Your task to perform on an android device: change notification settings in the gmail app Image 0: 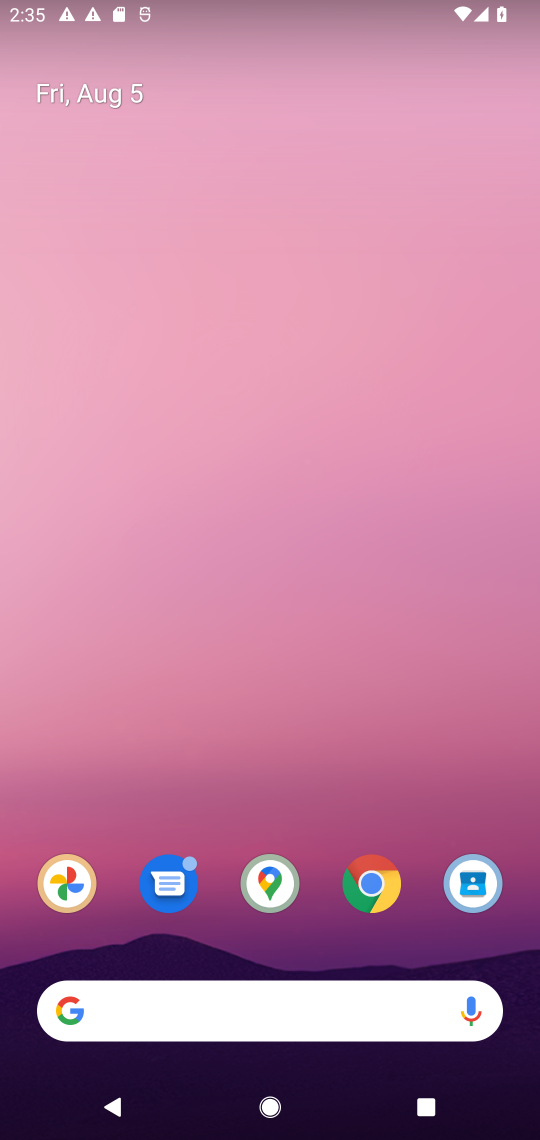
Step 0: press home button
Your task to perform on an android device: change notification settings in the gmail app Image 1: 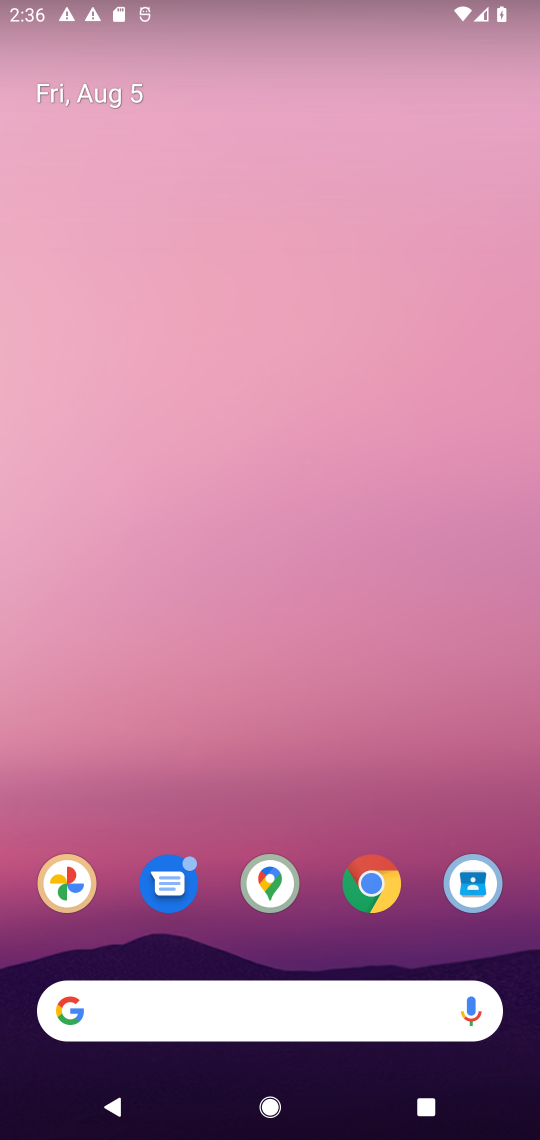
Step 1: drag from (323, 848) to (383, 231)
Your task to perform on an android device: change notification settings in the gmail app Image 2: 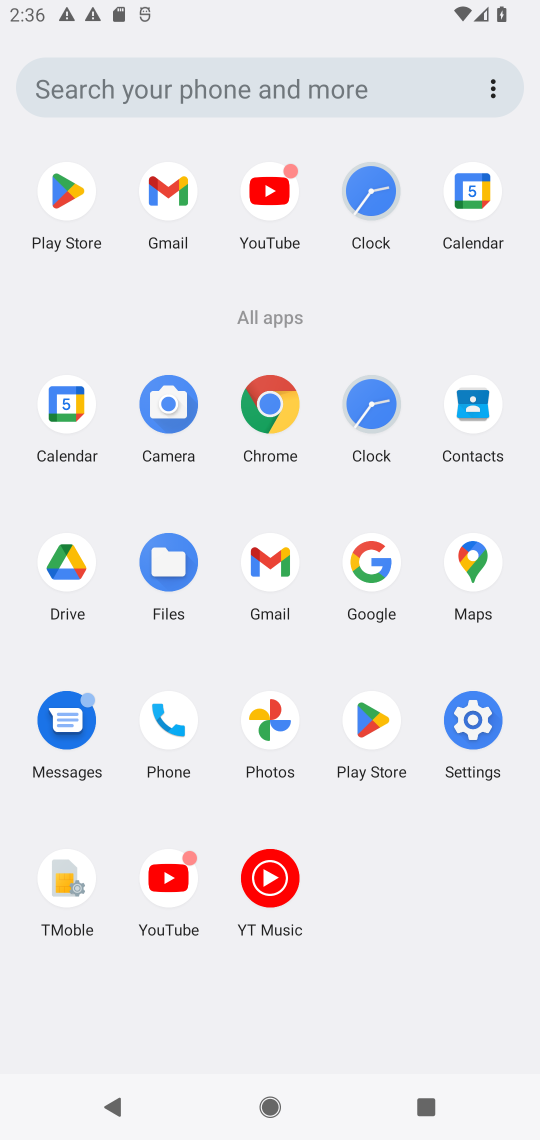
Step 2: click (273, 551)
Your task to perform on an android device: change notification settings in the gmail app Image 3: 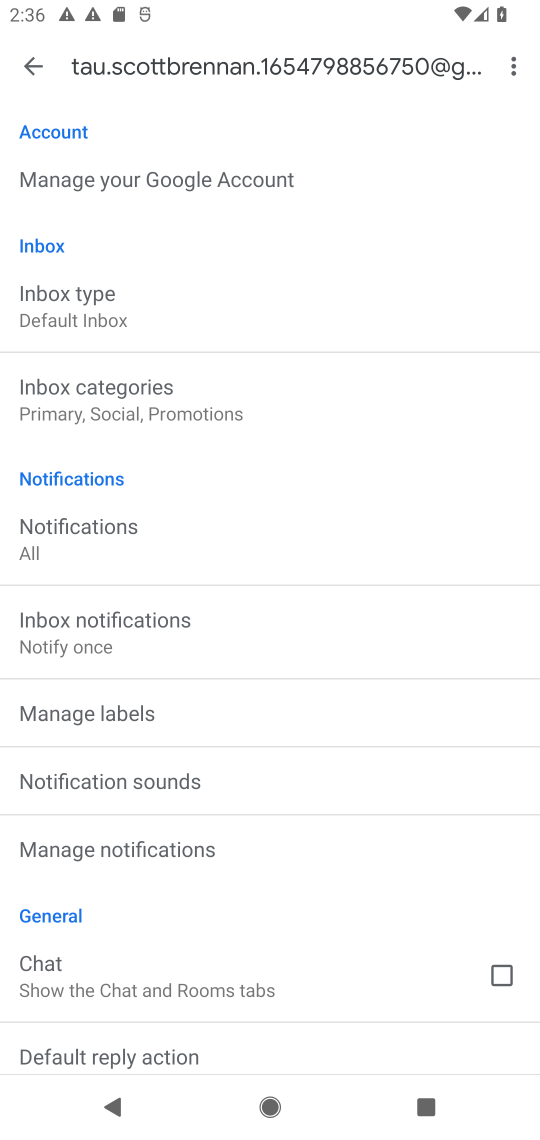
Step 3: click (30, 62)
Your task to perform on an android device: change notification settings in the gmail app Image 4: 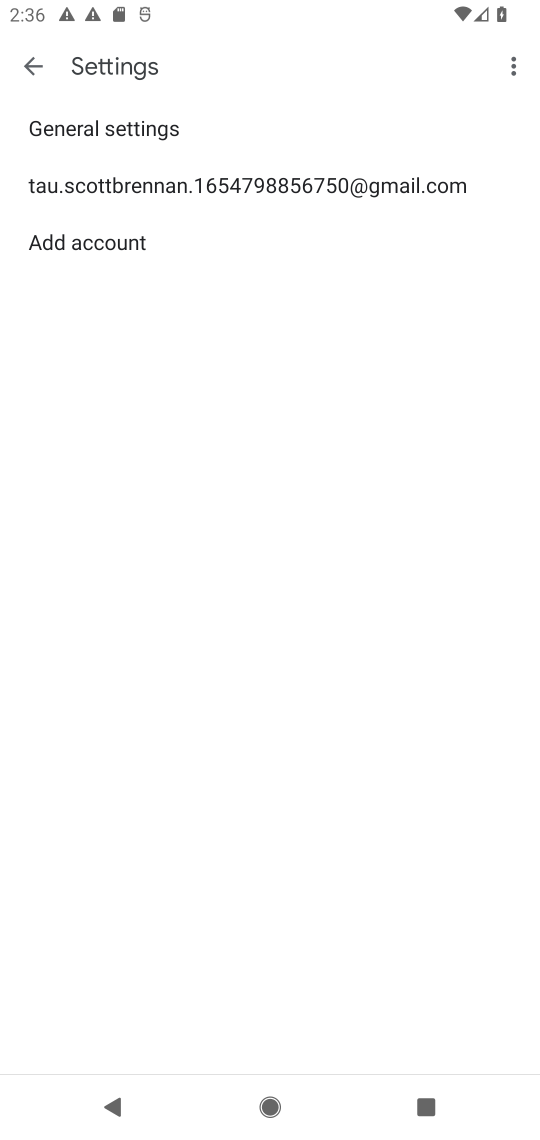
Step 4: click (178, 126)
Your task to perform on an android device: change notification settings in the gmail app Image 5: 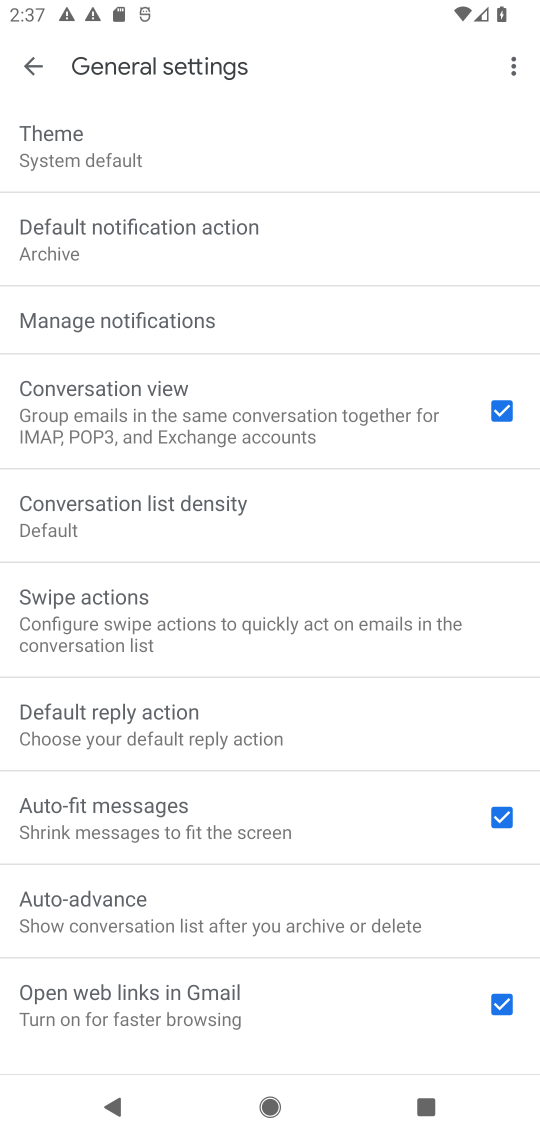
Step 5: click (128, 311)
Your task to perform on an android device: change notification settings in the gmail app Image 6: 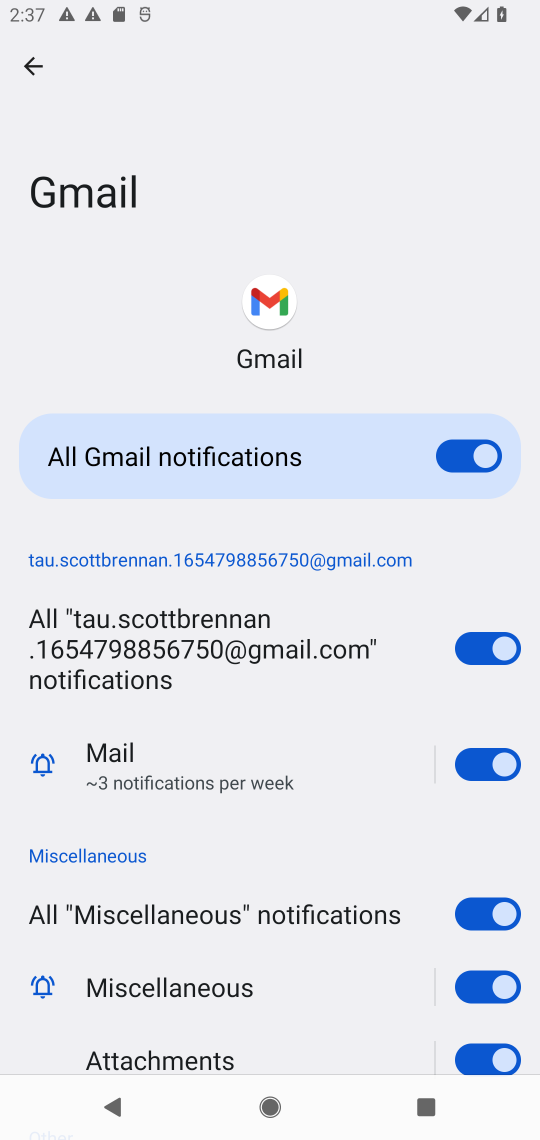
Step 6: click (464, 463)
Your task to perform on an android device: change notification settings in the gmail app Image 7: 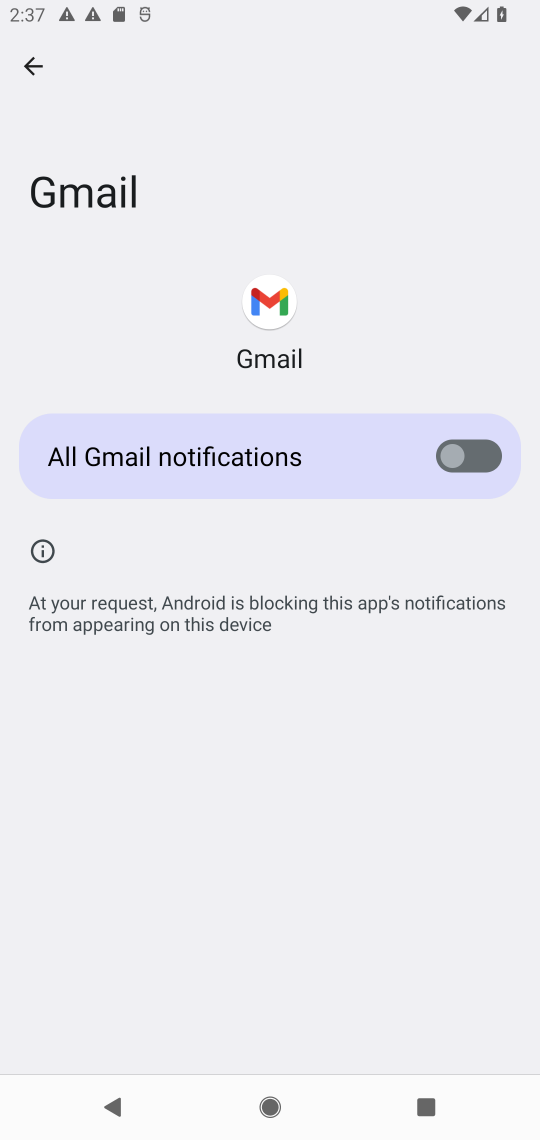
Step 7: task complete